Your task to perform on an android device: find photos in the google photos app Image 0: 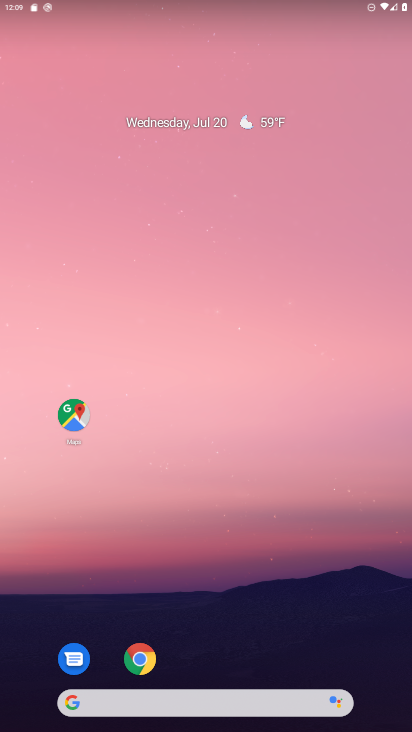
Step 0: drag from (307, 610) to (201, 148)
Your task to perform on an android device: find photos in the google photos app Image 1: 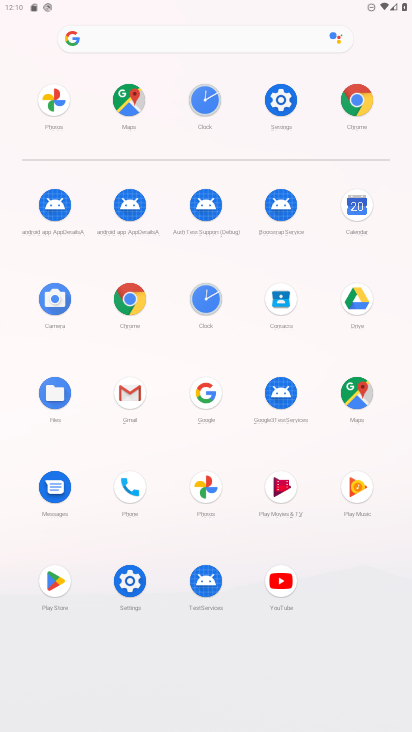
Step 1: click (199, 485)
Your task to perform on an android device: find photos in the google photos app Image 2: 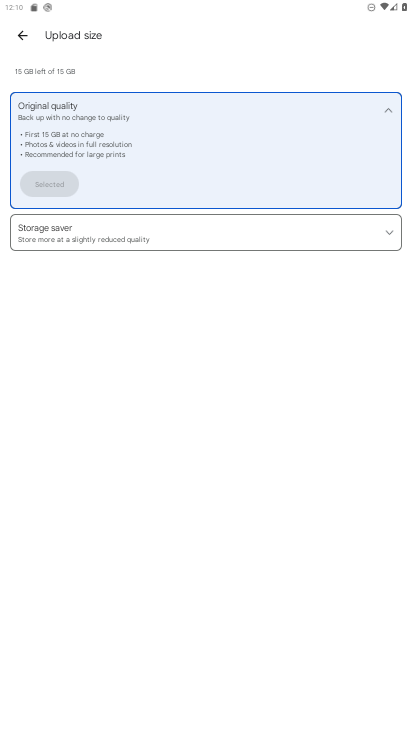
Step 2: click (28, 34)
Your task to perform on an android device: find photos in the google photos app Image 3: 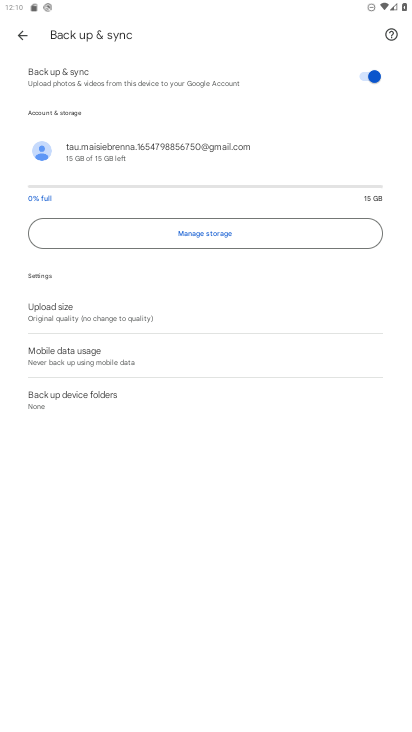
Step 3: click (20, 43)
Your task to perform on an android device: find photos in the google photos app Image 4: 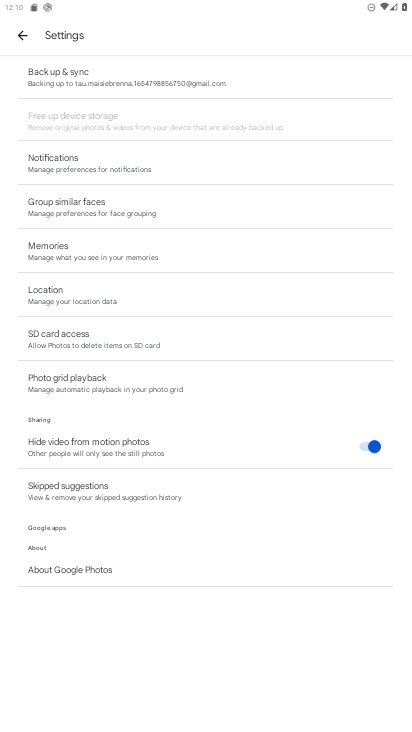
Step 4: click (14, 29)
Your task to perform on an android device: find photos in the google photos app Image 5: 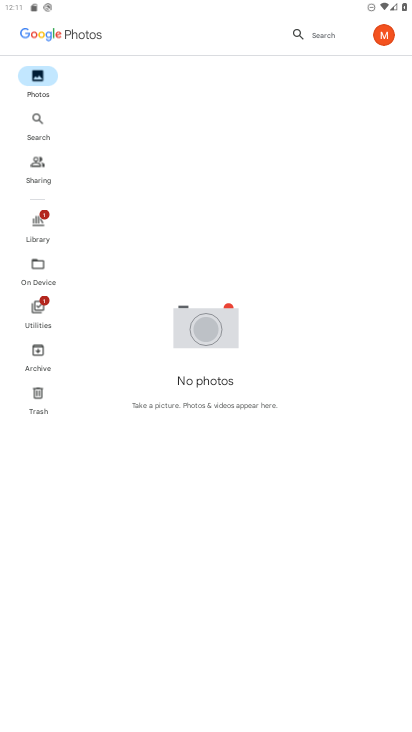
Step 5: task complete